Your task to perform on an android device: Check the news Image 0: 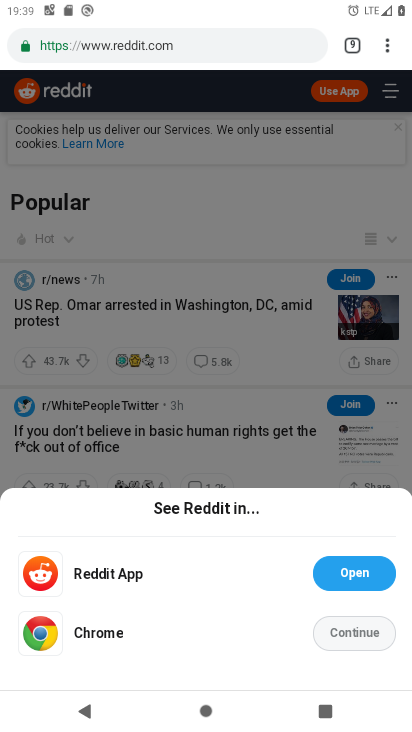
Step 0: press home button
Your task to perform on an android device: Check the news Image 1: 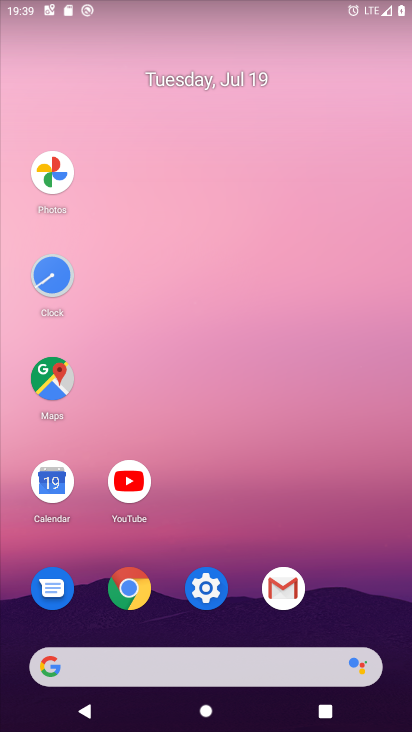
Step 1: task complete